Your task to perform on an android device: Clear the shopping cart on costco. Search for jbl charge 4 on costco, select the first entry, and add it to the cart. Image 0: 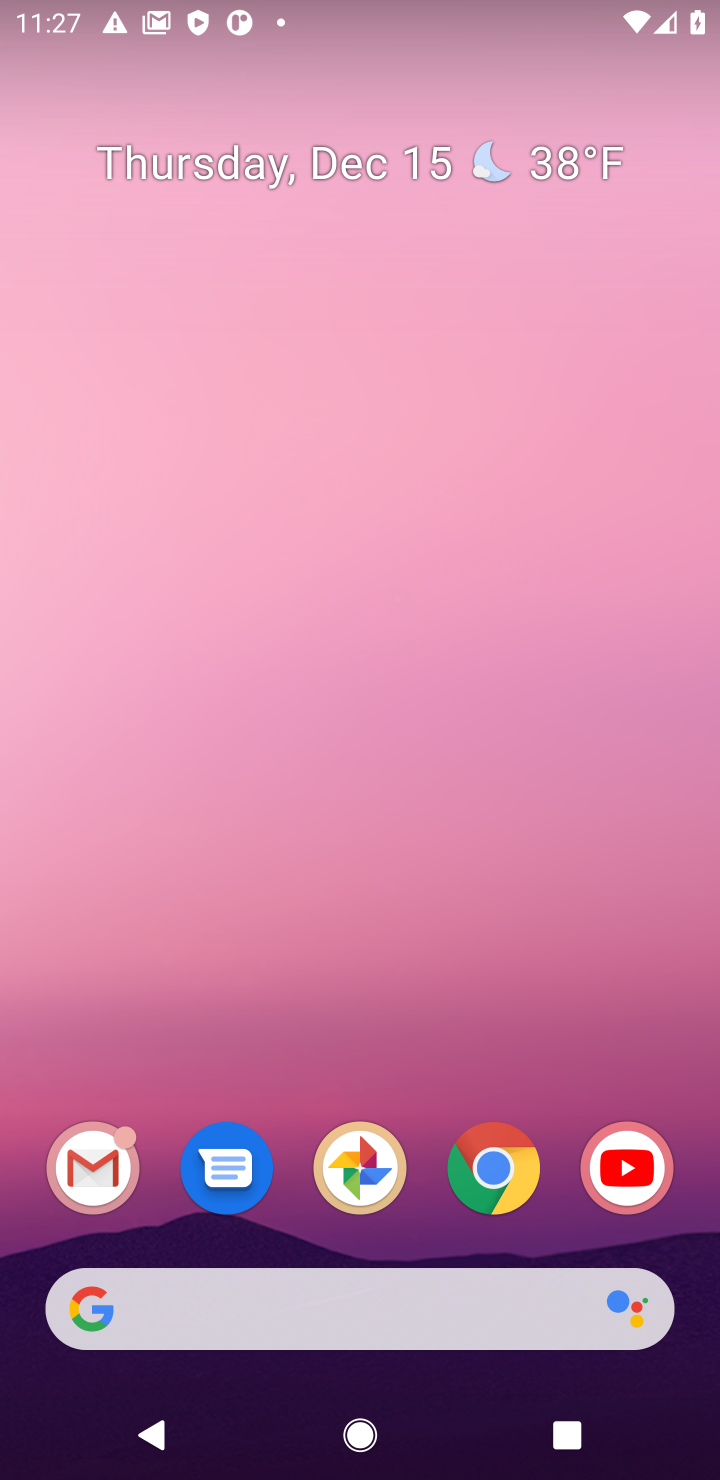
Step 0: click (493, 1182)
Your task to perform on an android device: Clear the shopping cart on costco. Search for jbl charge 4 on costco, select the first entry, and add it to the cart. Image 1: 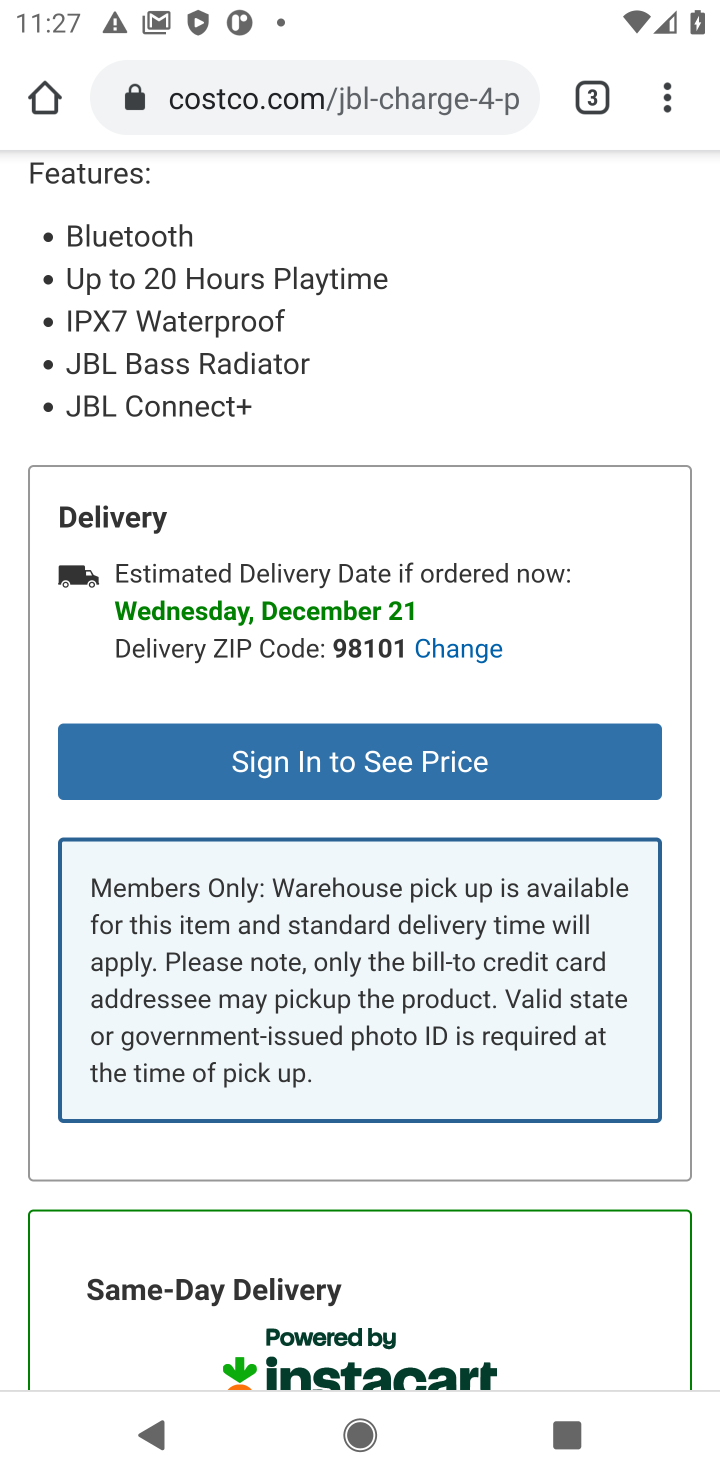
Step 1: click (343, 107)
Your task to perform on an android device: Clear the shopping cart on costco. Search for jbl charge 4 on costco, select the first entry, and add it to the cart. Image 2: 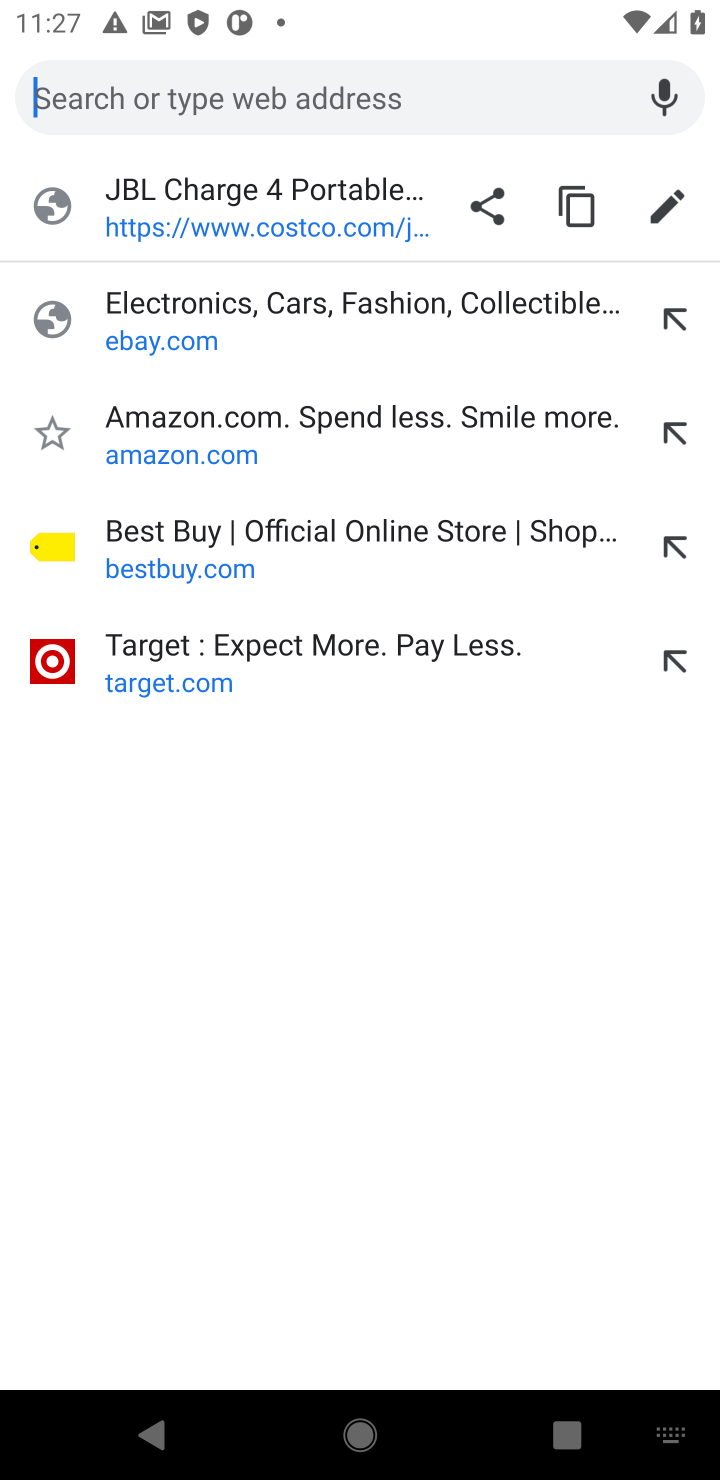
Step 2: type "costco"
Your task to perform on an android device: Clear the shopping cart on costco. Search for jbl charge 4 on costco, select the first entry, and add it to the cart. Image 3: 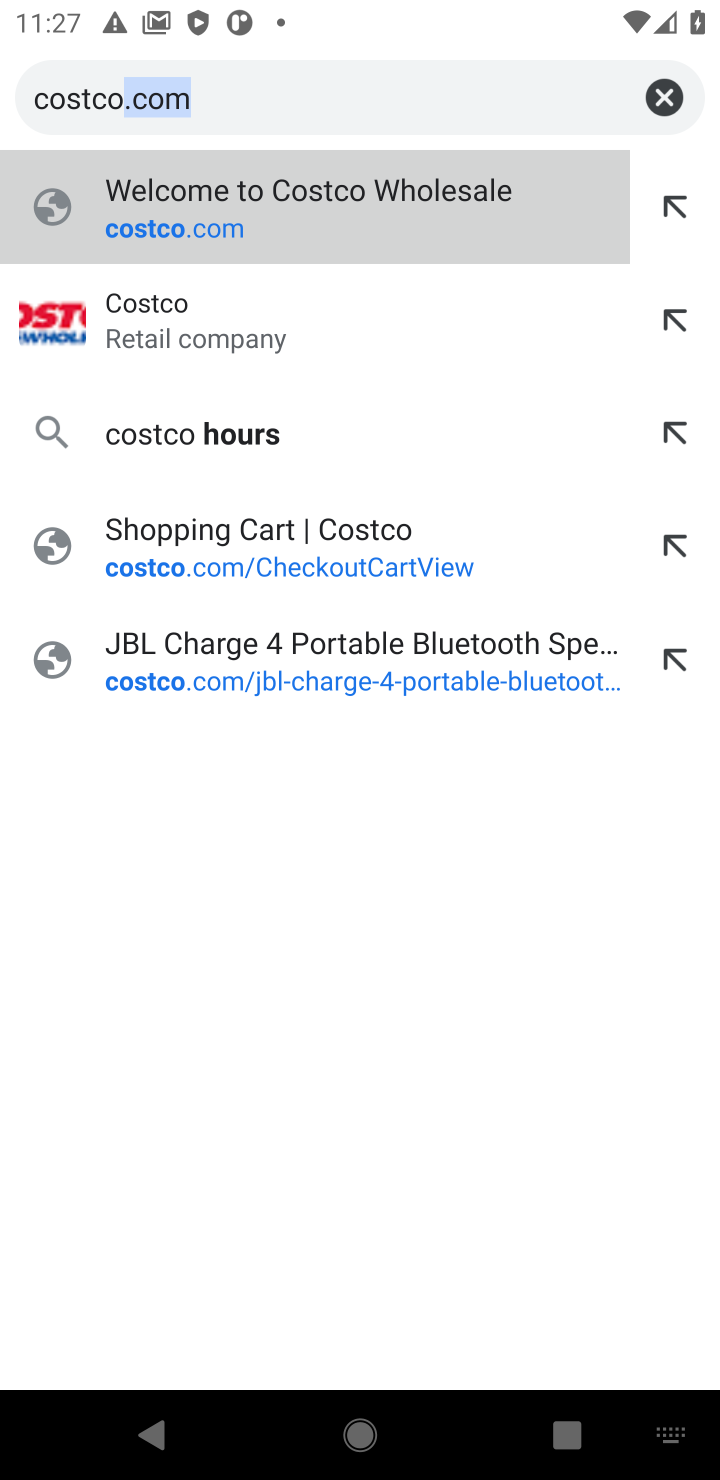
Step 3: click (257, 172)
Your task to perform on an android device: Clear the shopping cart on costco. Search for jbl charge 4 on costco, select the first entry, and add it to the cart. Image 4: 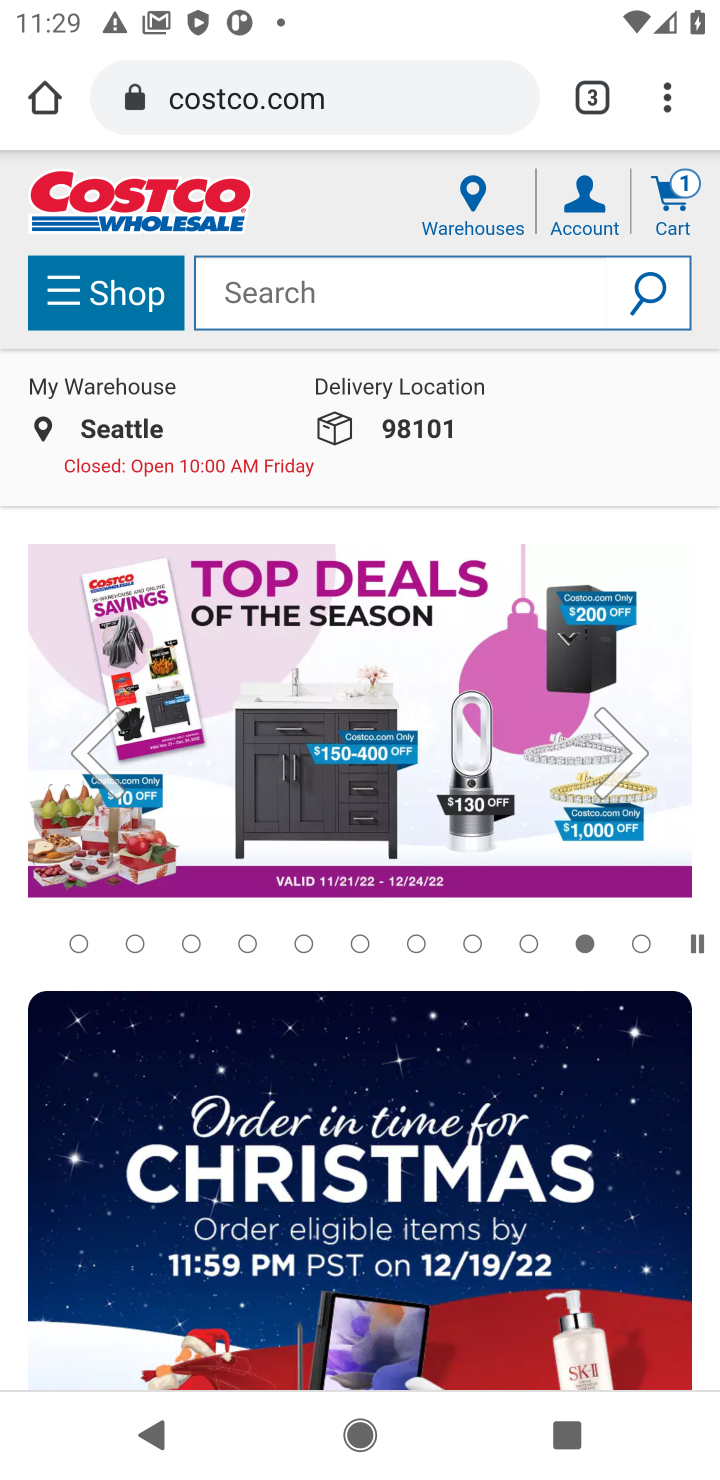
Step 4: click (671, 188)
Your task to perform on an android device: Clear the shopping cart on costco. Search for jbl charge 4 on costco, select the first entry, and add it to the cart. Image 5: 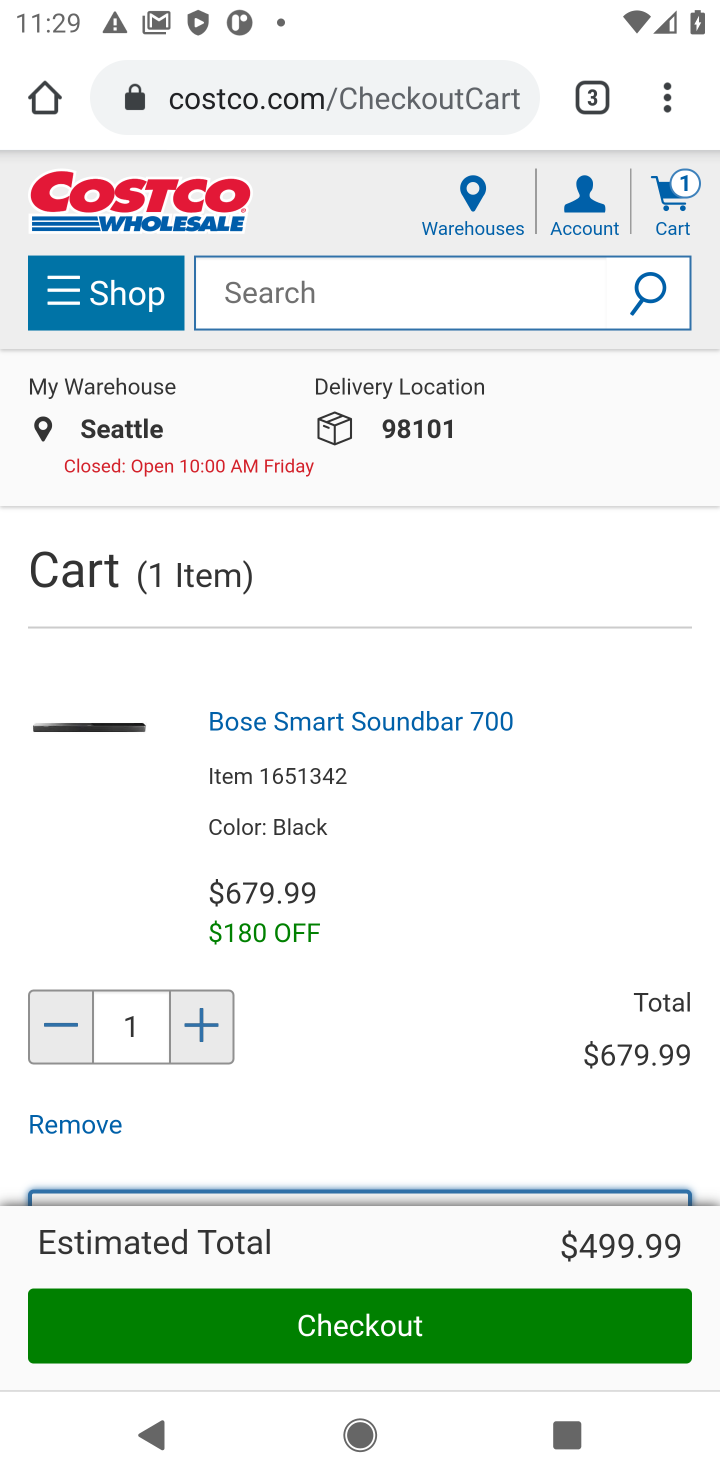
Step 5: click (68, 1128)
Your task to perform on an android device: Clear the shopping cart on costco. Search for jbl charge 4 on costco, select the first entry, and add it to the cart. Image 6: 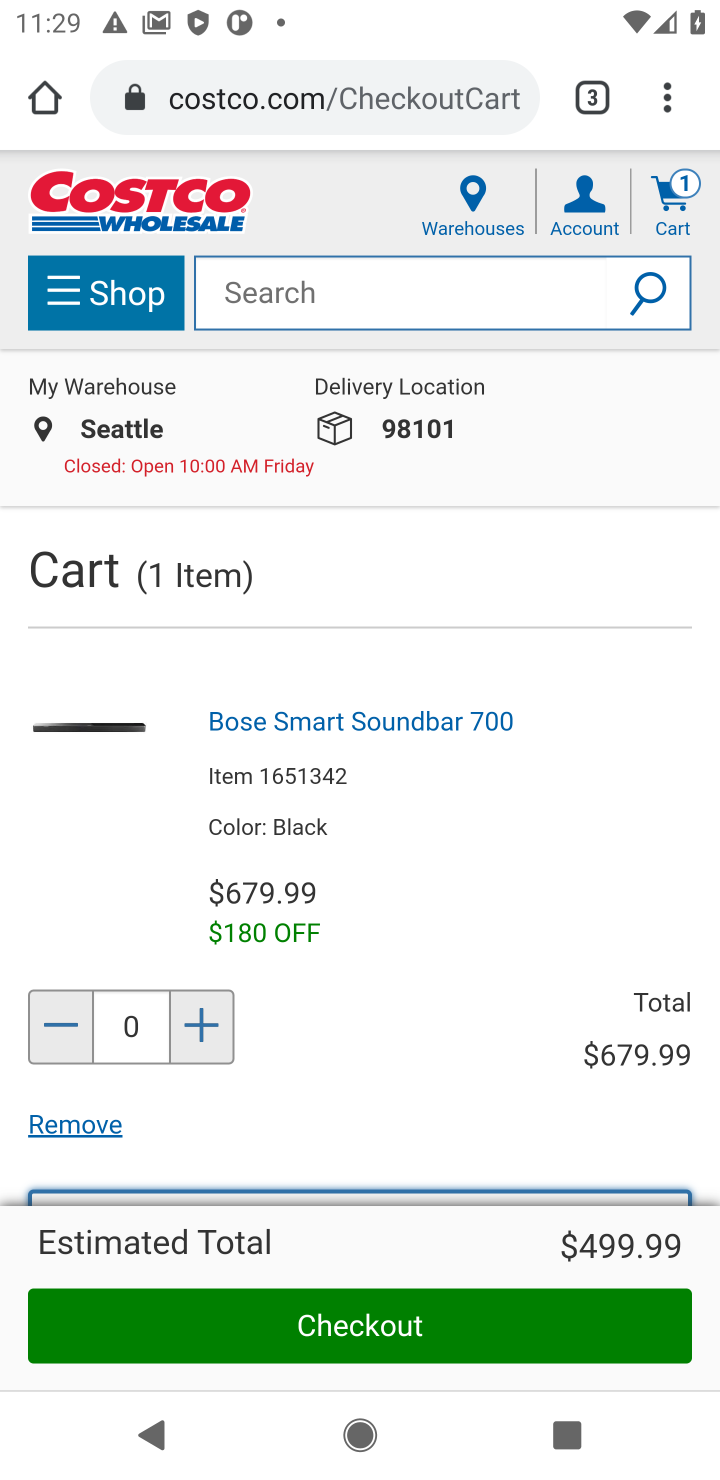
Step 6: task complete